Your task to perform on an android device: Open network settings Image 0: 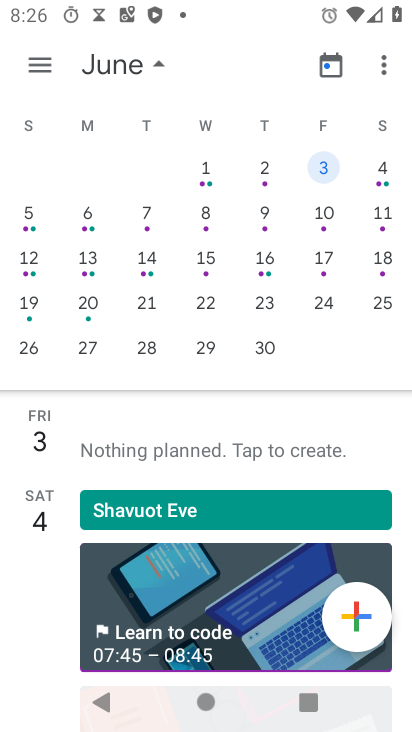
Step 0: press home button
Your task to perform on an android device: Open network settings Image 1: 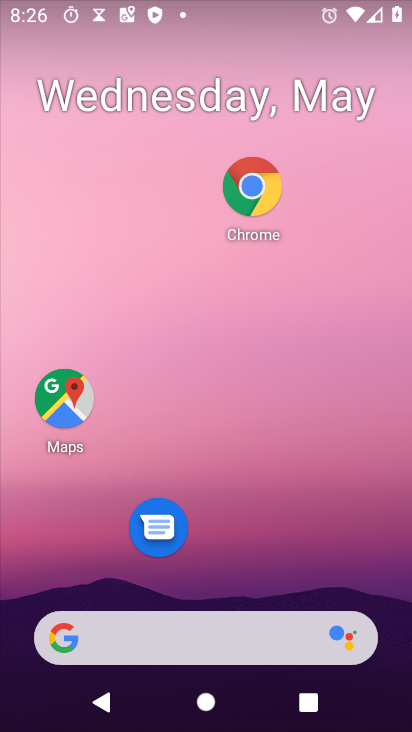
Step 1: drag from (302, 570) to (297, 39)
Your task to perform on an android device: Open network settings Image 2: 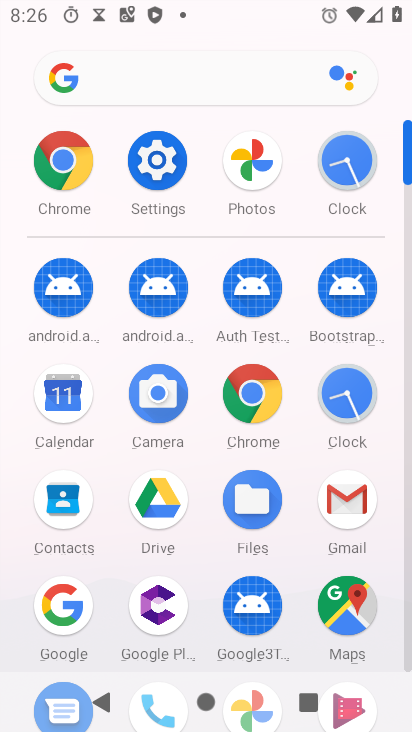
Step 2: click (161, 167)
Your task to perform on an android device: Open network settings Image 3: 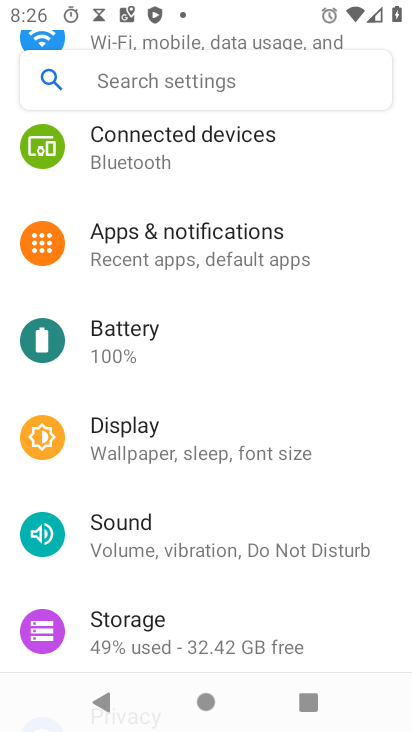
Step 3: drag from (326, 165) to (317, 673)
Your task to perform on an android device: Open network settings Image 4: 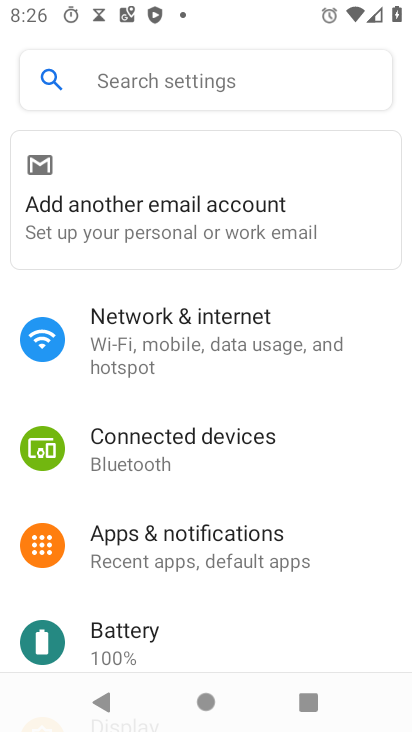
Step 4: click (191, 327)
Your task to perform on an android device: Open network settings Image 5: 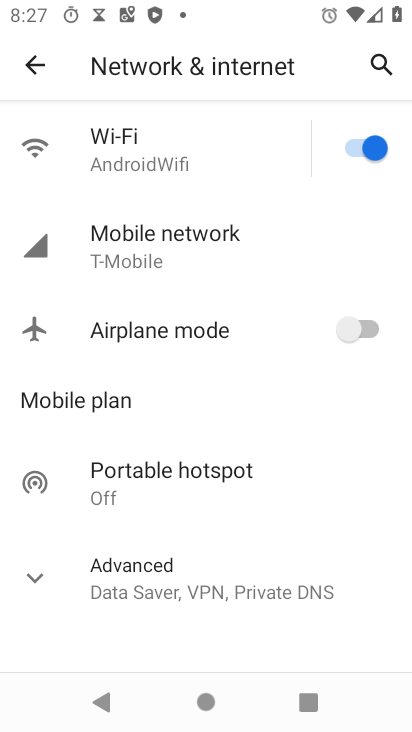
Step 5: task complete